Your task to perform on an android device: What is the news today? Image 0: 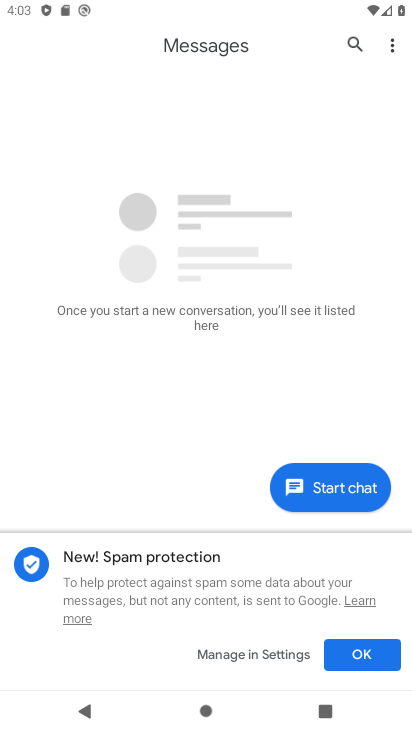
Step 0: press home button
Your task to perform on an android device: What is the news today? Image 1: 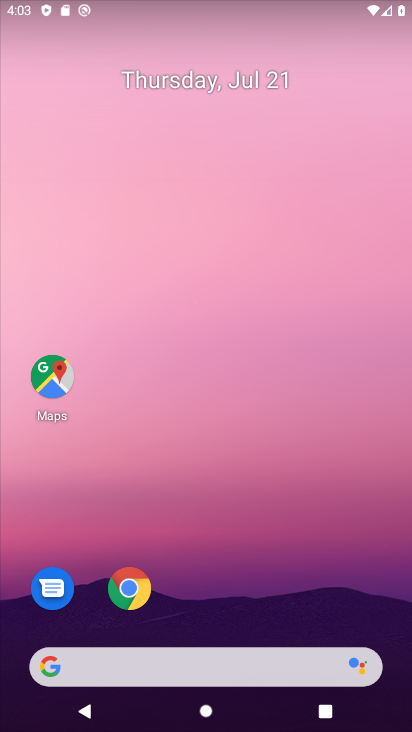
Step 1: click (149, 730)
Your task to perform on an android device: What is the news today? Image 2: 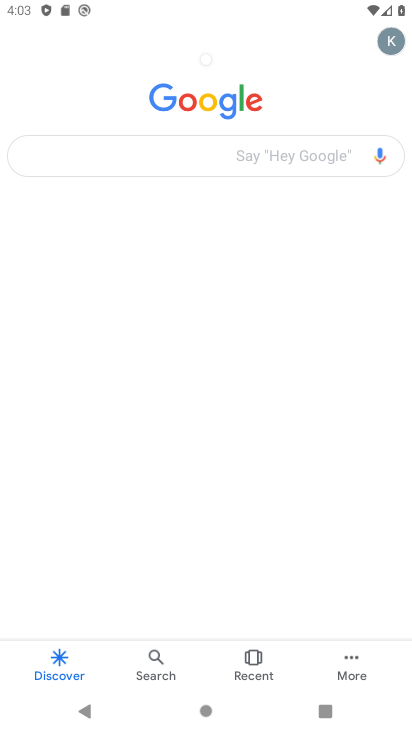
Step 2: press home button
Your task to perform on an android device: What is the news today? Image 3: 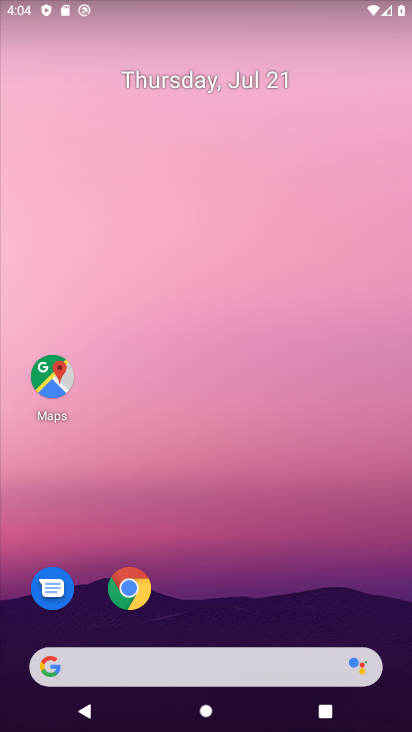
Step 3: click (274, 665)
Your task to perform on an android device: What is the news today? Image 4: 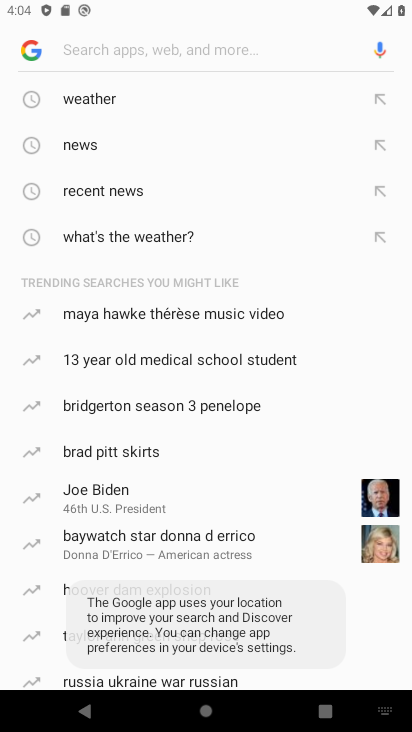
Step 4: type " What is the news today?"
Your task to perform on an android device: What is the news today? Image 5: 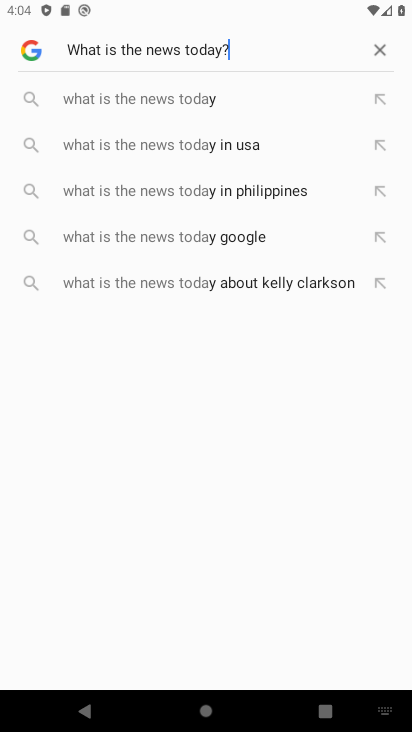
Step 5: press enter
Your task to perform on an android device: What is the news today? Image 6: 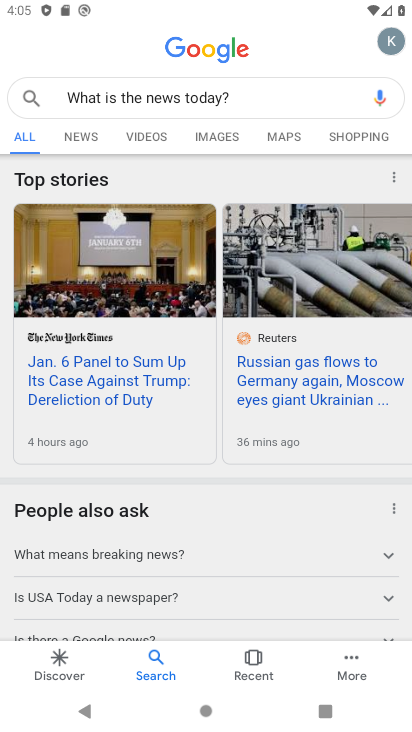
Step 6: task complete